Your task to perform on an android device: Check the news Image 0: 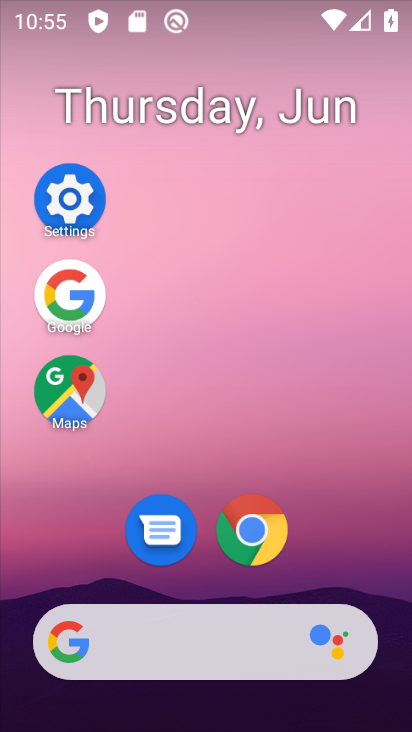
Step 0: click (65, 309)
Your task to perform on an android device: Check the news Image 1: 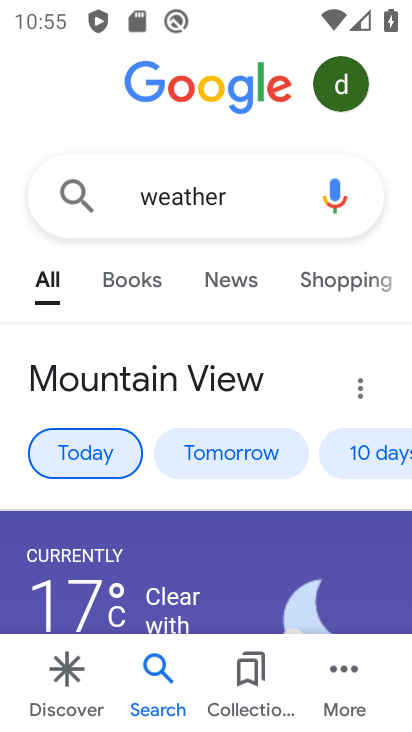
Step 1: click (284, 188)
Your task to perform on an android device: Check the news Image 2: 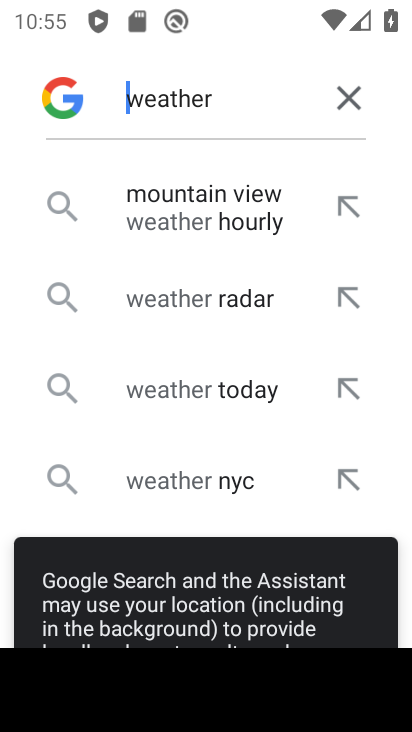
Step 2: click (341, 98)
Your task to perform on an android device: Check the news Image 3: 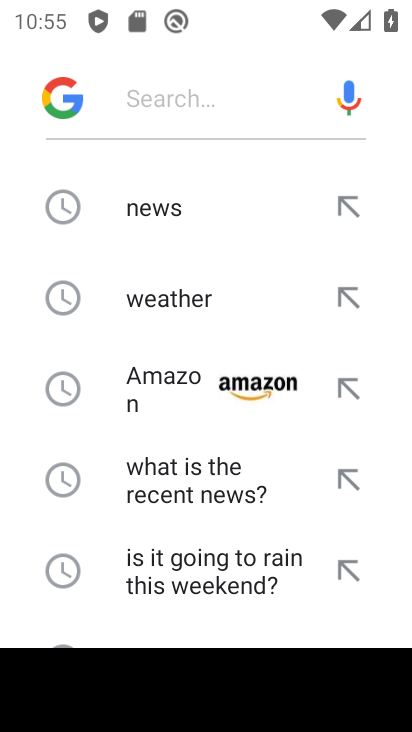
Step 3: drag from (216, 447) to (217, 137)
Your task to perform on an android device: Check the news Image 4: 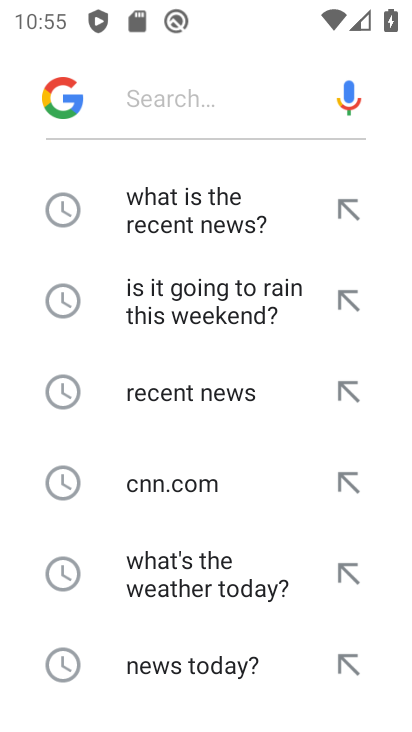
Step 4: click (236, 404)
Your task to perform on an android device: Check the news Image 5: 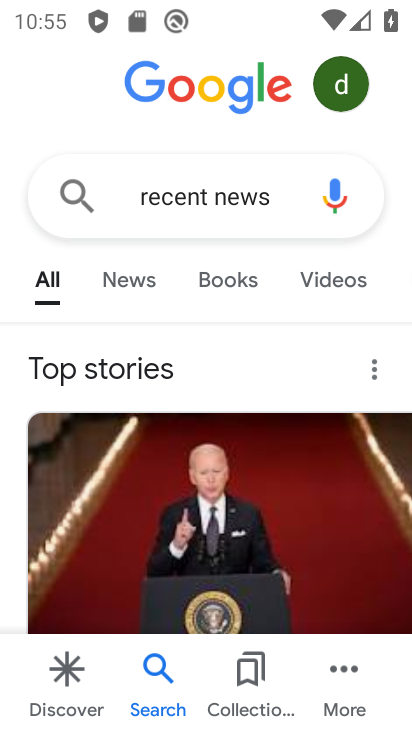
Step 5: task complete